Your task to perform on an android device: turn on wifi Image 0: 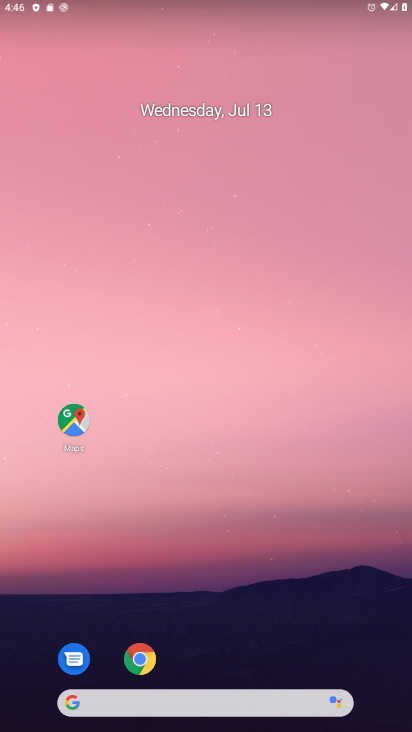
Step 0: drag from (325, 604) to (261, 144)
Your task to perform on an android device: turn on wifi Image 1: 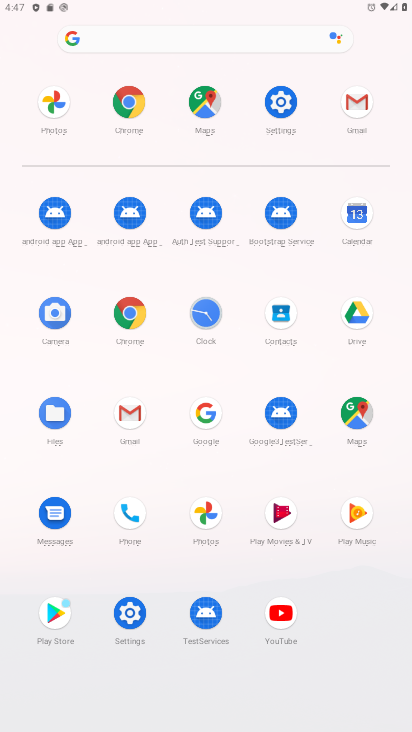
Step 1: click (273, 106)
Your task to perform on an android device: turn on wifi Image 2: 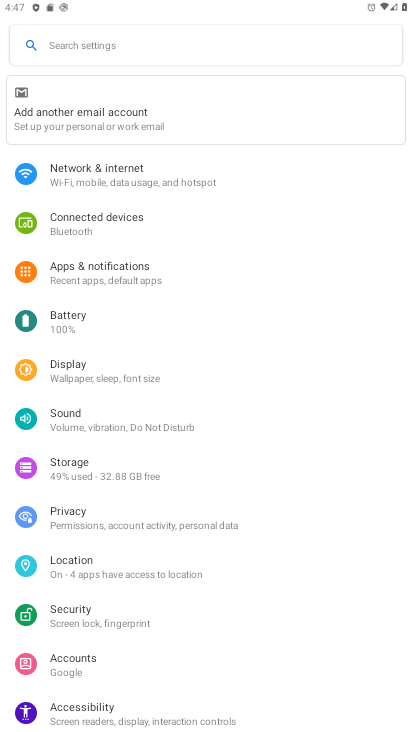
Step 2: click (99, 180)
Your task to perform on an android device: turn on wifi Image 3: 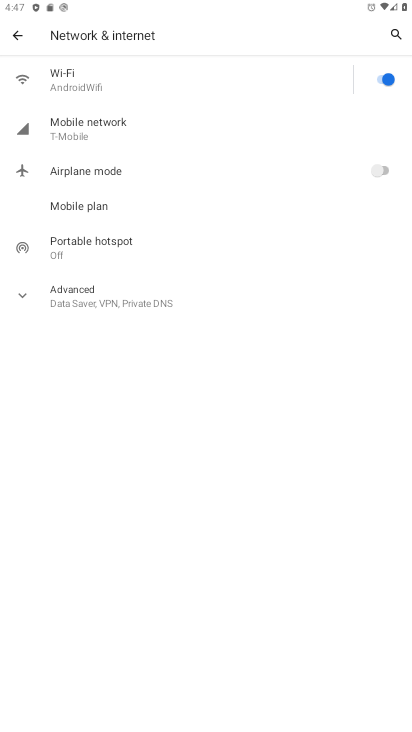
Step 3: task complete